Your task to perform on an android device: turn on priority inbox in the gmail app Image 0: 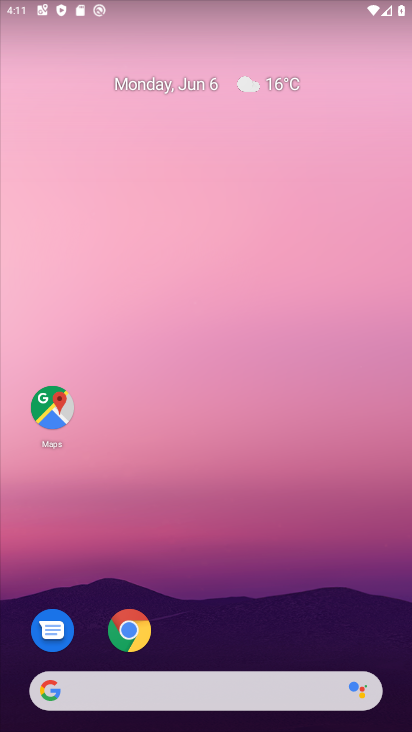
Step 0: drag from (213, 597) to (285, 73)
Your task to perform on an android device: turn on priority inbox in the gmail app Image 1: 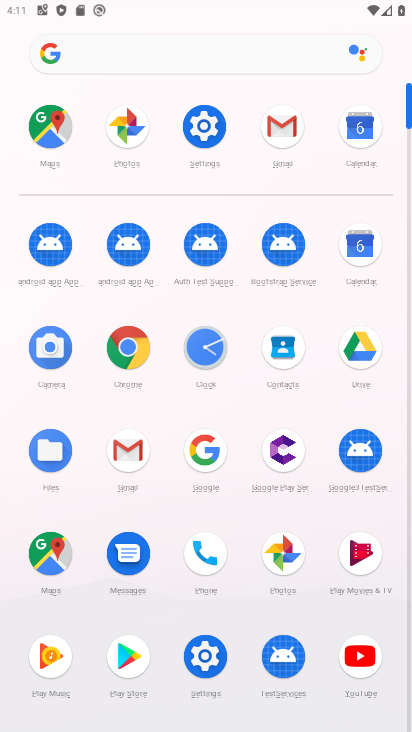
Step 1: click (286, 128)
Your task to perform on an android device: turn on priority inbox in the gmail app Image 2: 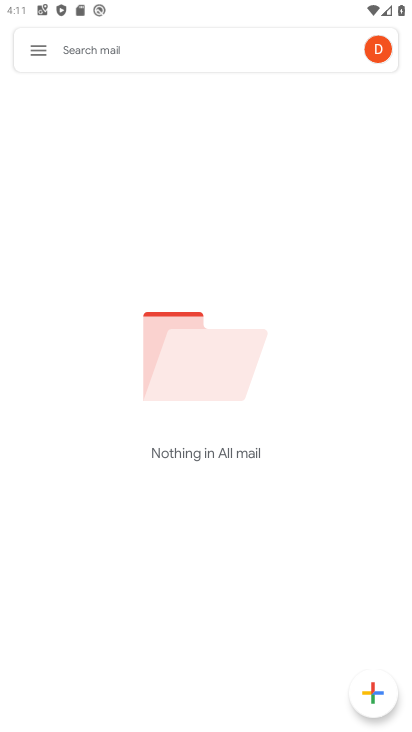
Step 2: click (37, 42)
Your task to perform on an android device: turn on priority inbox in the gmail app Image 3: 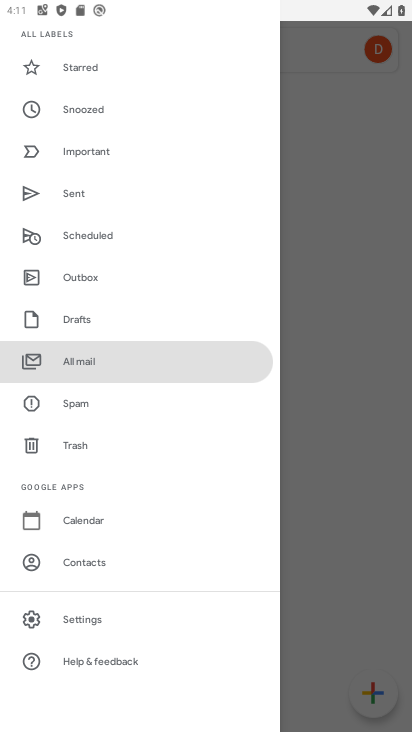
Step 3: click (82, 612)
Your task to perform on an android device: turn on priority inbox in the gmail app Image 4: 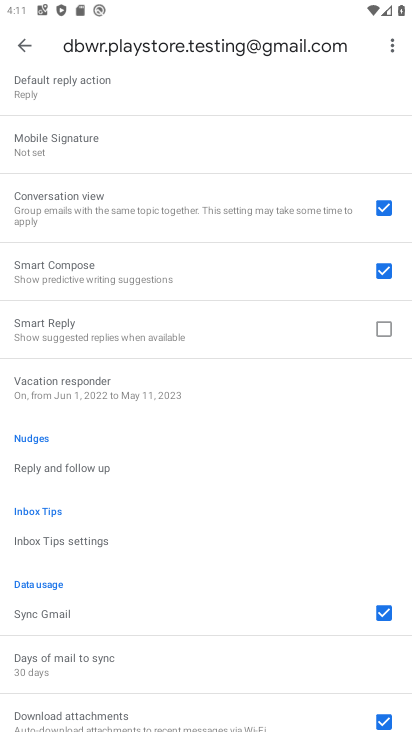
Step 4: drag from (153, 126) to (231, 667)
Your task to perform on an android device: turn on priority inbox in the gmail app Image 5: 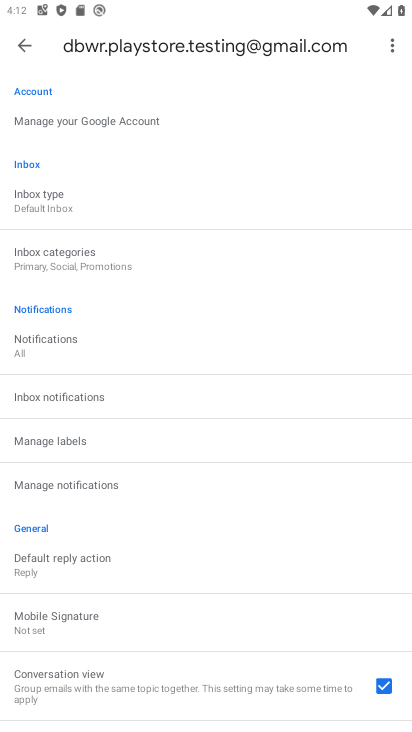
Step 5: click (92, 202)
Your task to perform on an android device: turn on priority inbox in the gmail app Image 6: 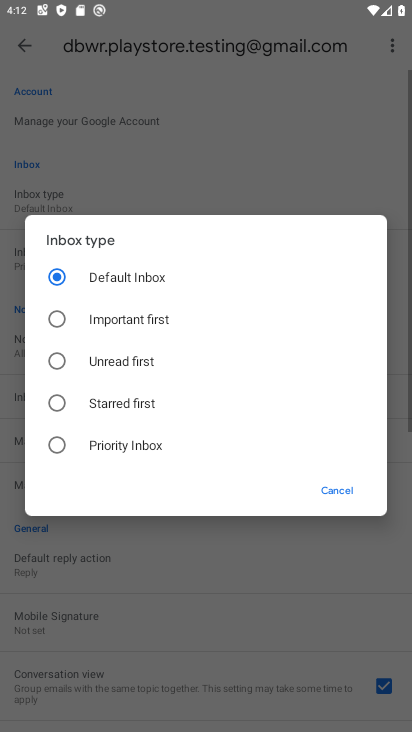
Step 6: click (107, 445)
Your task to perform on an android device: turn on priority inbox in the gmail app Image 7: 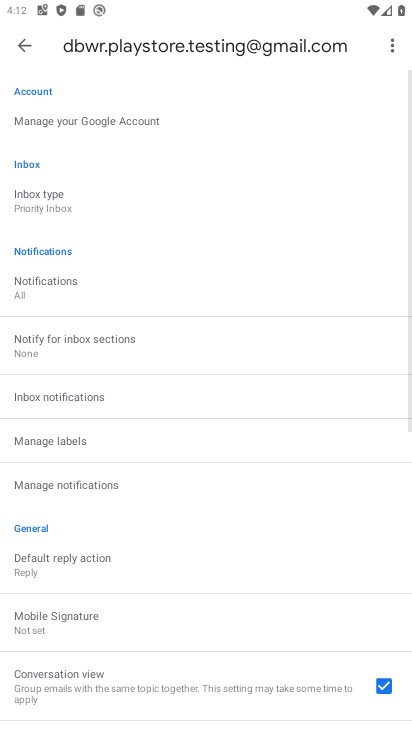
Step 7: task complete